Your task to perform on an android device: Open CNN.com Image 0: 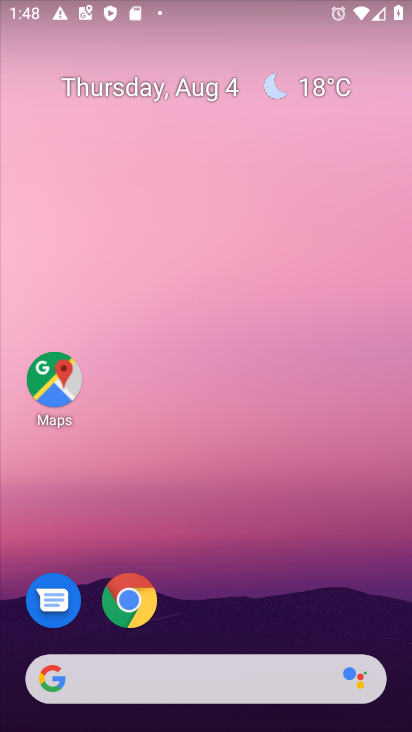
Step 0: click (139, 606)
Your task to perform on an android device: Open CNN.com Image 1: 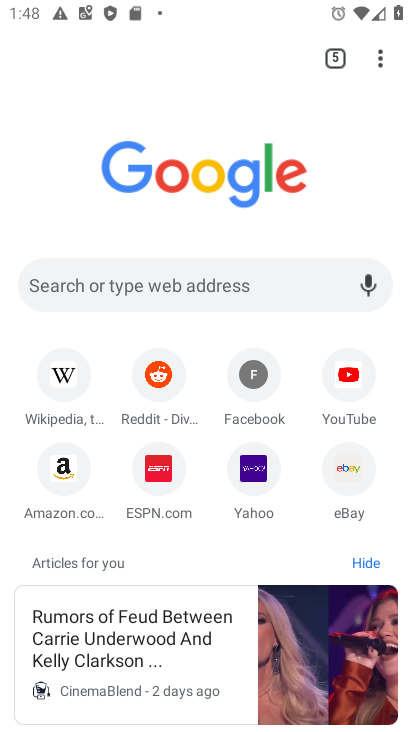
Step 1: click (146, 280)
Your task to perform on an android device: Open CNN.com Image 2: 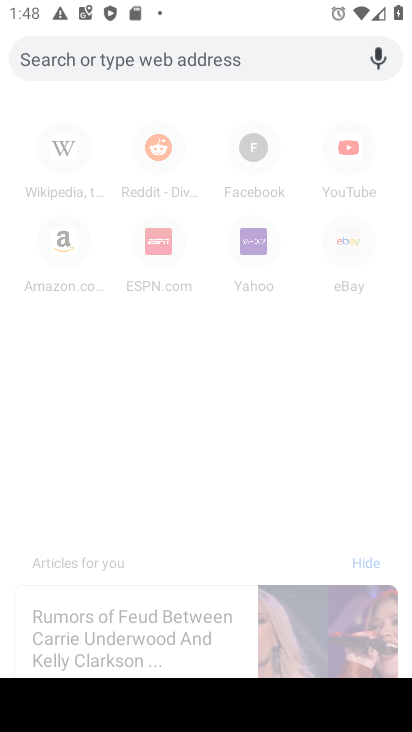
Step 2: type "cnn.com"
Your task to perform on an android device: Open CNN.com Image 3: 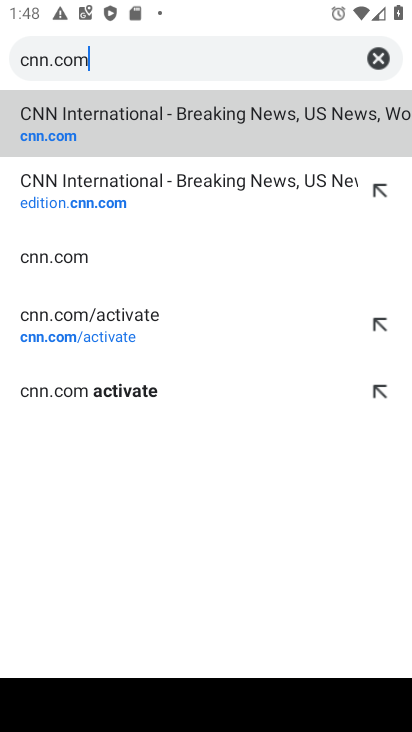
Step 3: click (133, 124)
Your task to perform on an android device: Open CNN.com Image 4: 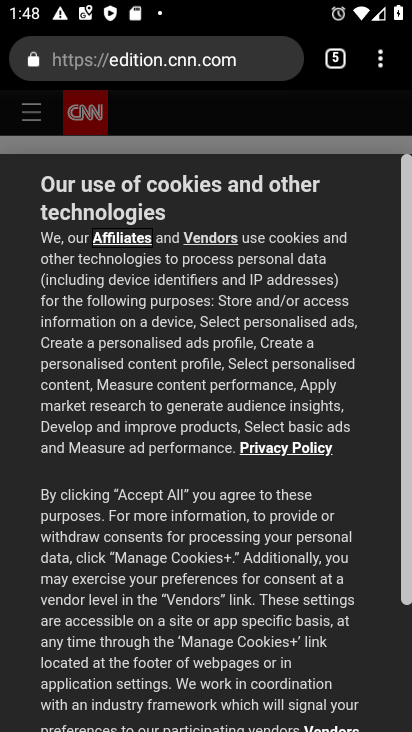
Step 4: drag from (202, 674) to (352, 194)
Your task to perform on an android device: Open CNN.com Image 5: 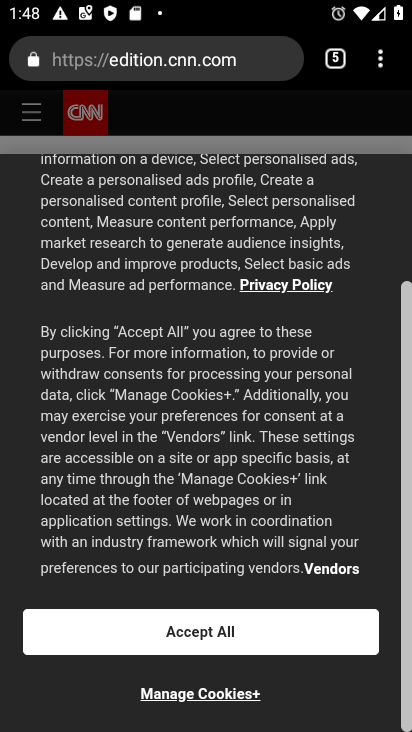
Step 5: click (201, 633)
Your task to perform on an android device: Open CNN.com Image 6: 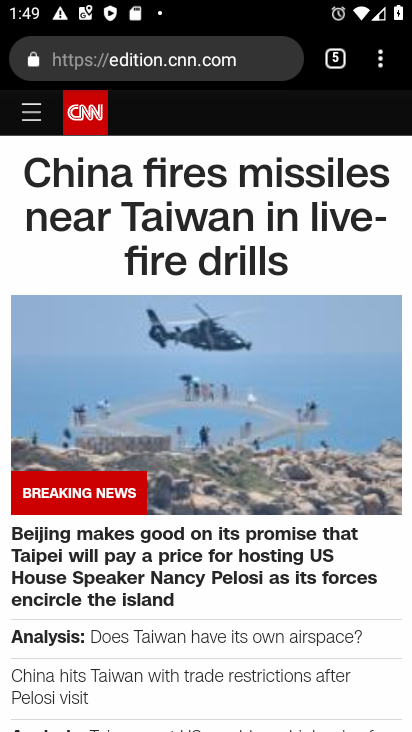
Step 6: task complete